Your task to perform on an android device: turn smart compose on in the gmail app Image 0: 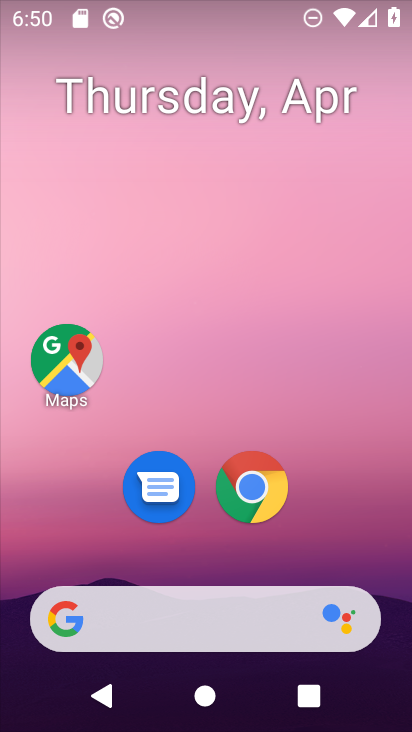
Step 0: drag from (323, 487) to (400, 214)
Your task to perform on an android device: turn smart compose on in the gmail app Image 1: 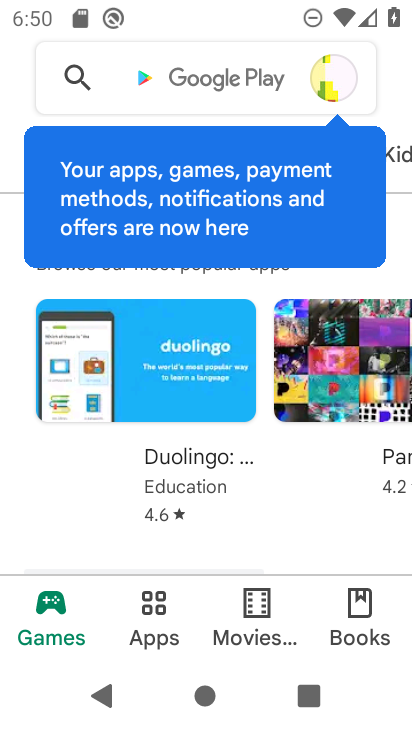
Step 1: press home button
Your task to perform on an android device: turn smart compose on in the gmail app Image 2: 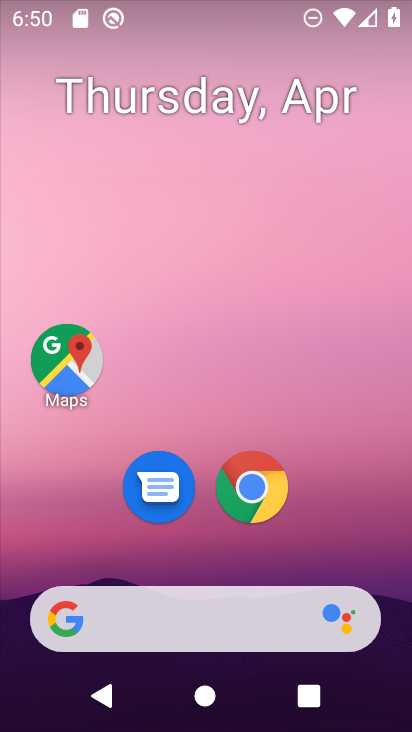
Step 2: drag from (369, 465) to (255, 13)
Your task to perform on an android device: turn smart compose on in the gmail app Image 3: 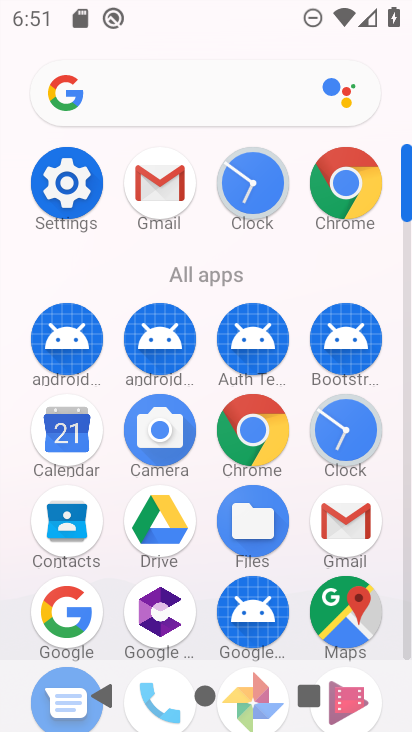
Step 3: click (153, 189)
Your task to perform on an android device: turn smart compose on in the gmail app Image 4: 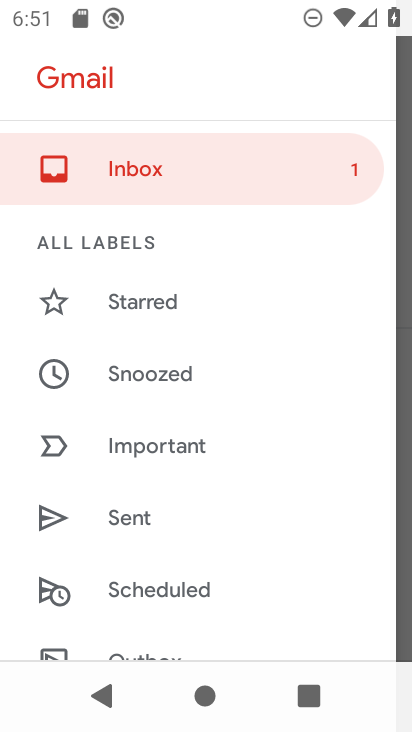
Step 4: drag from (219, 579) to (225, 201)
Your task to perform on an android device: turn smart compose on in the gmail app Image 5: 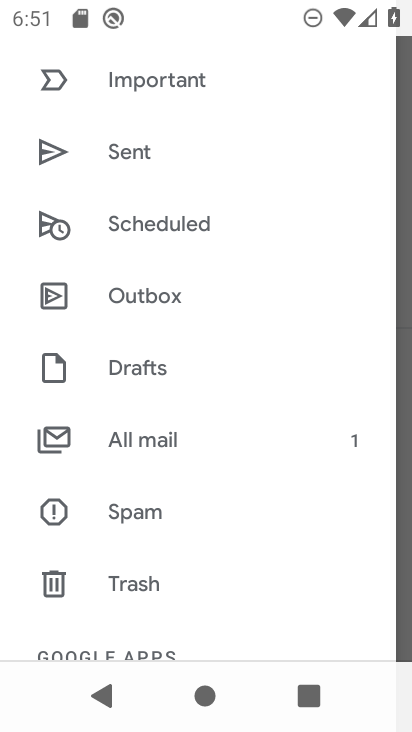
Step 5: drag from (265, 500) to (203, 168)
Your task to perform on an android device: turn smart compose on in the gmail app Image 6: 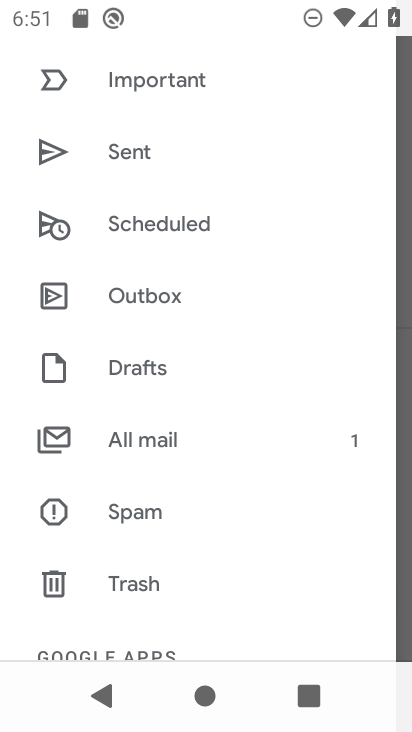
Step 6: drag from (179, 638) to (194, 183)
Your task to perform on an android device: turn smart compose on in the gmail app Image 7: 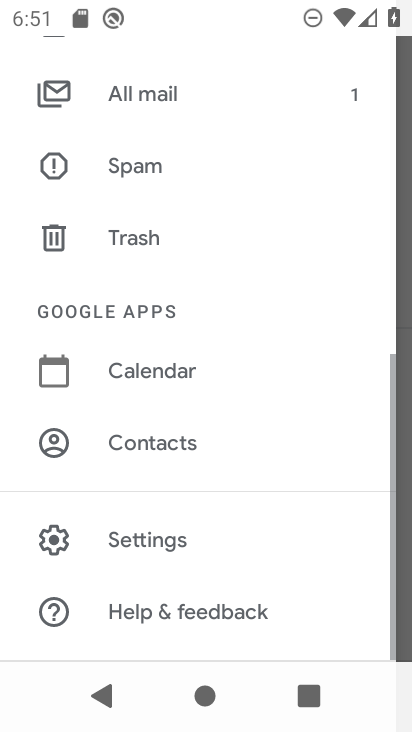
Step 7: drag from (236, 593) to (248, 176)
Your task to perform on an android device: turn smart compose on in the gmail app Image 8: 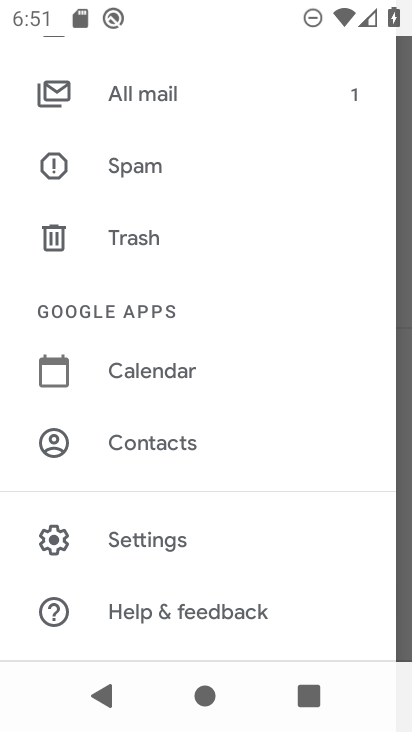
Step 8: click (94, 538)
Your task to perform on an android device: turn smart compose on in the gmail app Image 9: 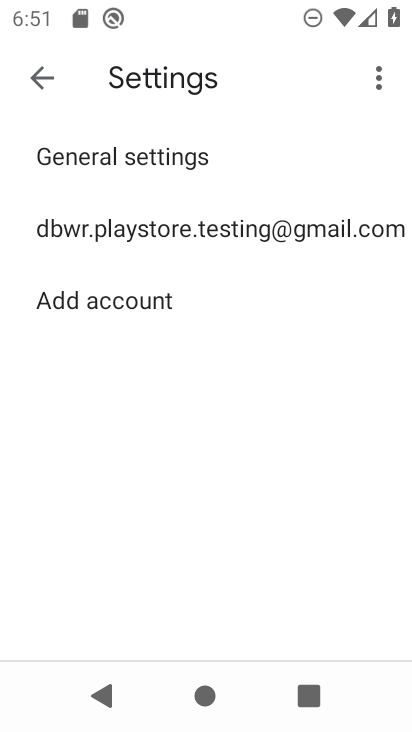
Step 9: click (265, 236)
Your task to perform on an android device: turn smart compose on in the gmail app Image 10: 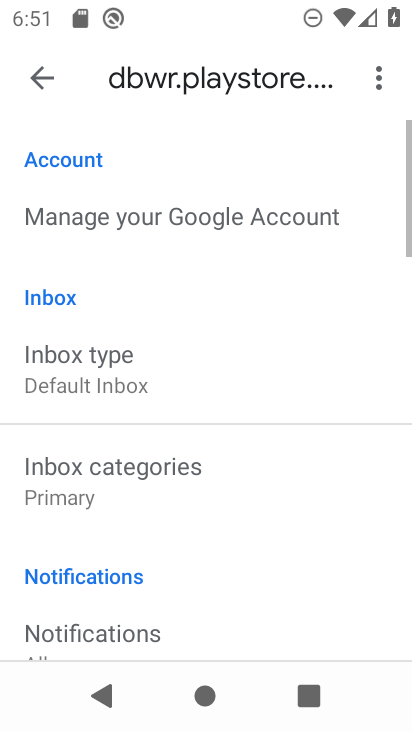
Step 10: task complete